Your task to perform on an android device: Open Yahoo.com Image 0: 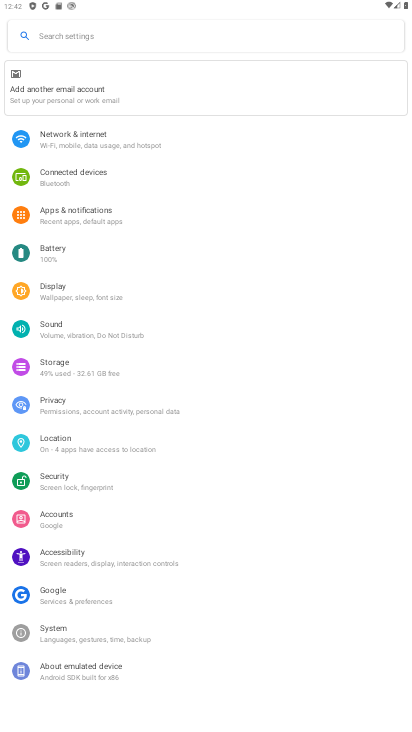
Step 0: press home button
Your task to perform on an android device: Open Yahoo.com Image 1: 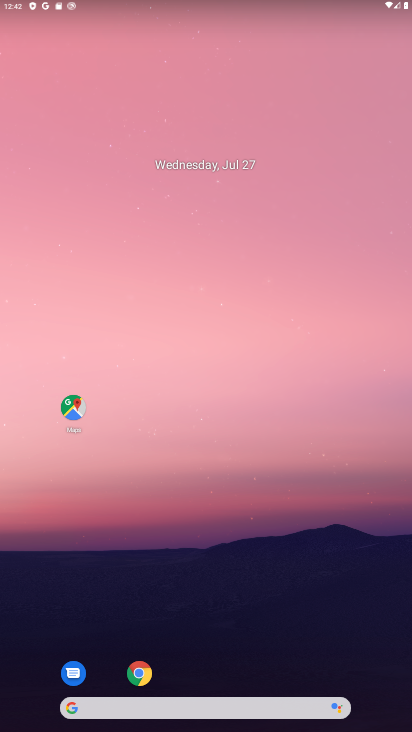
Step 1: click (178, 703)
Your task to perform on an android device: Open Yahoo.com Image 2: 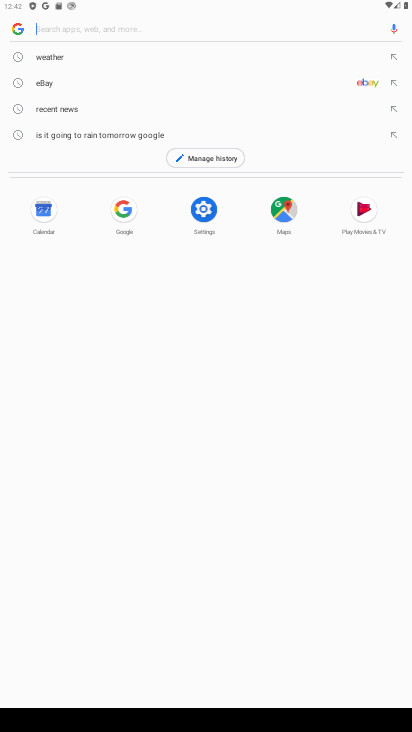
Step 2: click (74, 27)
Your task to perform on an android device: Open Yahoo.com Image 3: 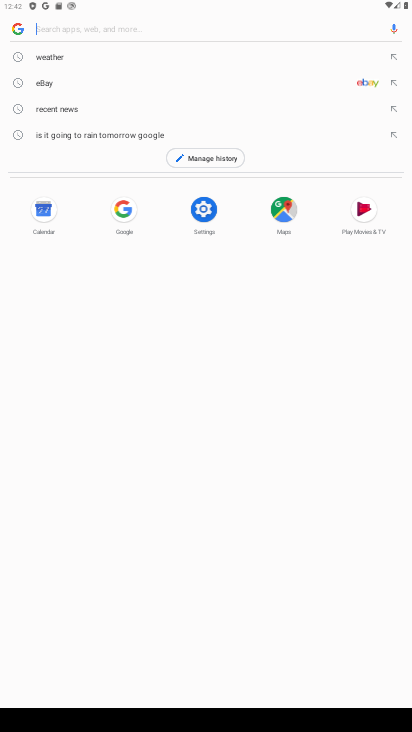
Step 3: type "yahoo.com"
Your task to perform on an android device: Open Yahoo.com Image 4: 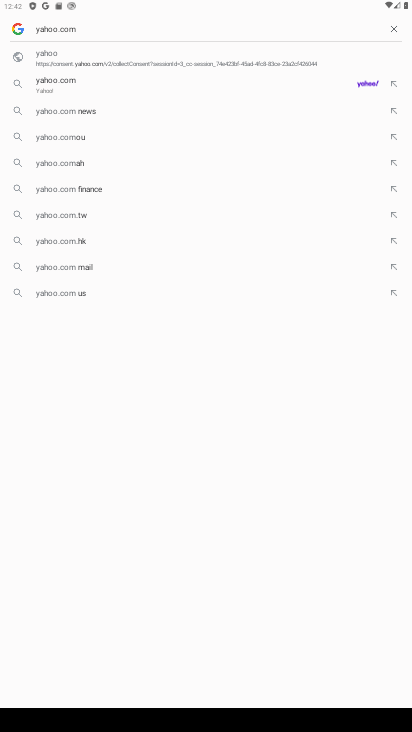
Step 4: click (55, 84)
Your task to perform on an android device: Open Yahoo.com Image 5: 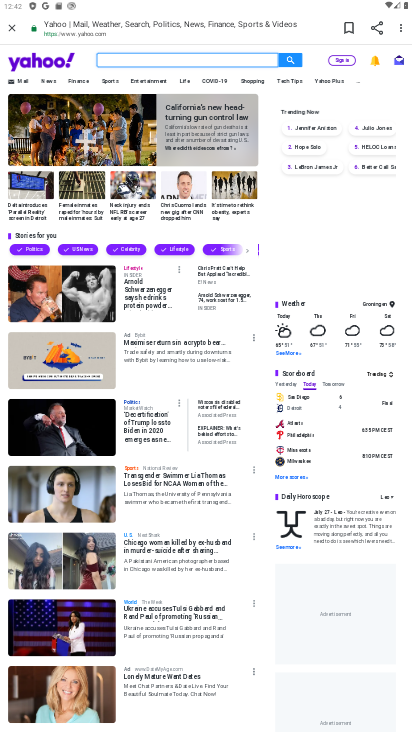
Step 5: task complete